Your task to perform on an android device: See recent photos Image 0: 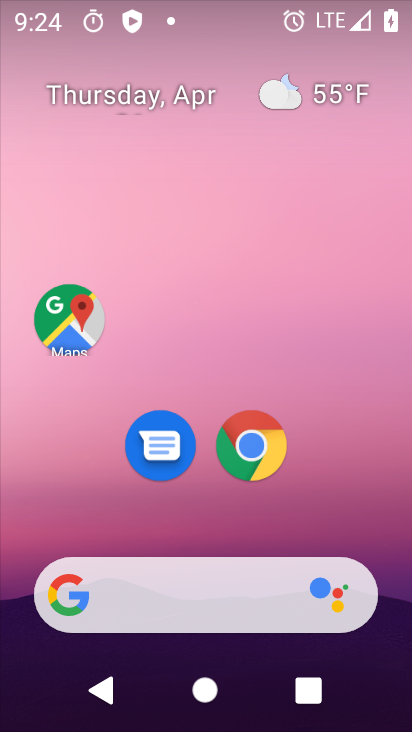
Step 0: drag from (376, 536) to (362, 3)
Your task to perform on an android device: See recent photos Image 1: 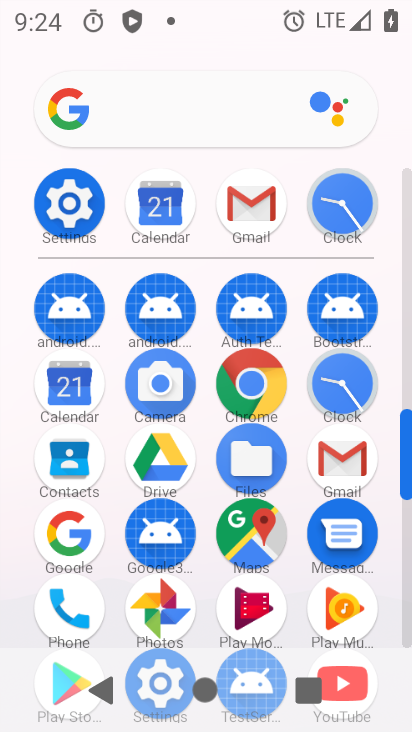
Step 1: click (157, 619)
Your task to perform on an android device: See recent photos Image 2: 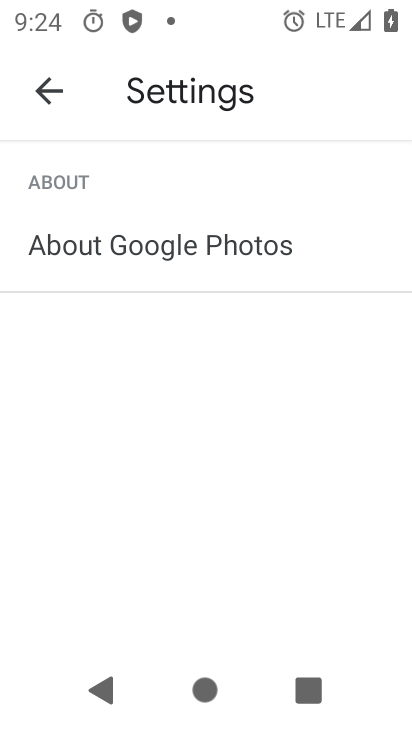
Step 2: click (39, 104)
Your task to perform on an android device: See recent photos Image 3: 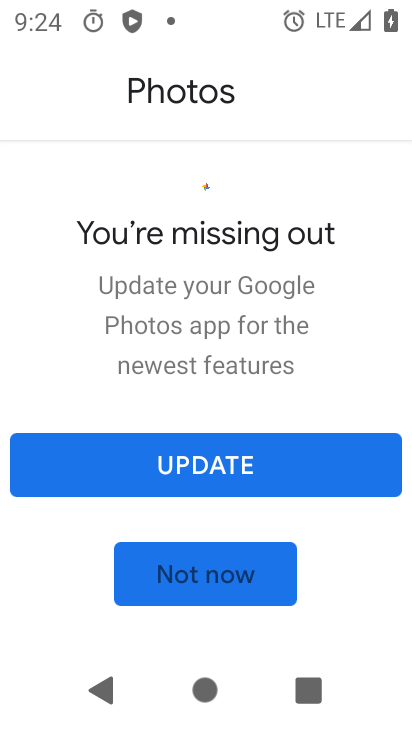
Step 3: click (152, 560)
Your task to perform on an android device: See recent photos Image 4: 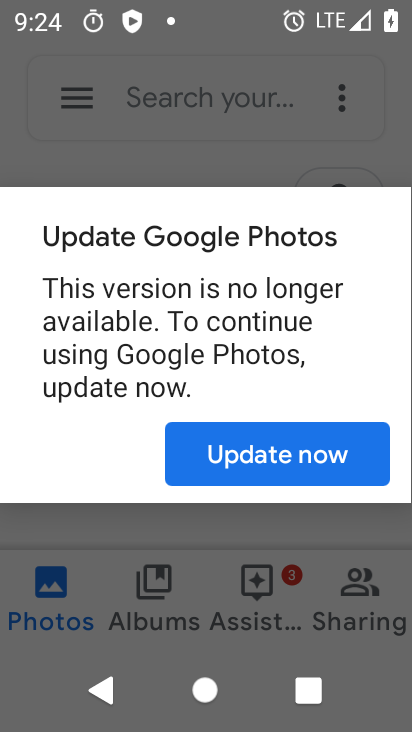
Step 4: click (240, 464)
Your task to perform on an android device: See recent photos Image 5: 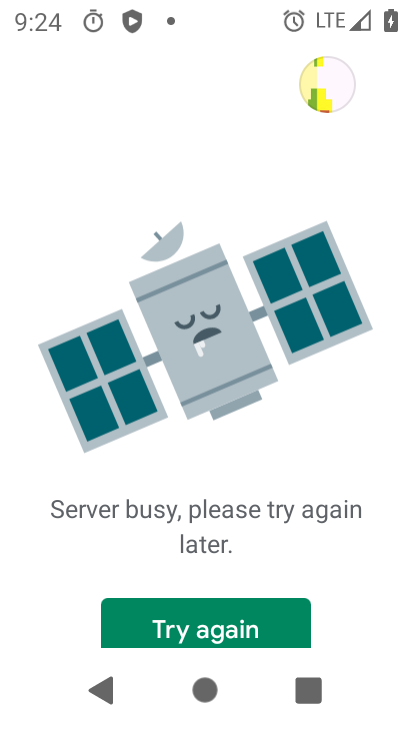
Step 5: task complete